Your task to perform on an android device: Search for Mexican restaurants on Maps Image 0: 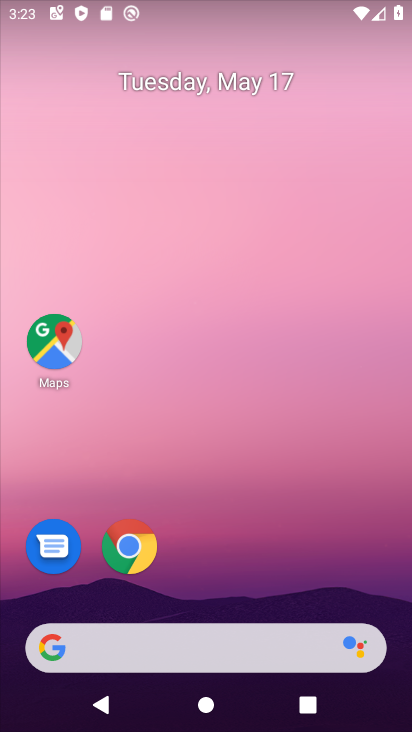
Step 0: click (50, 338)
Your task to perform on an android device: Search for Mexican restaurants on Maps Image 1: 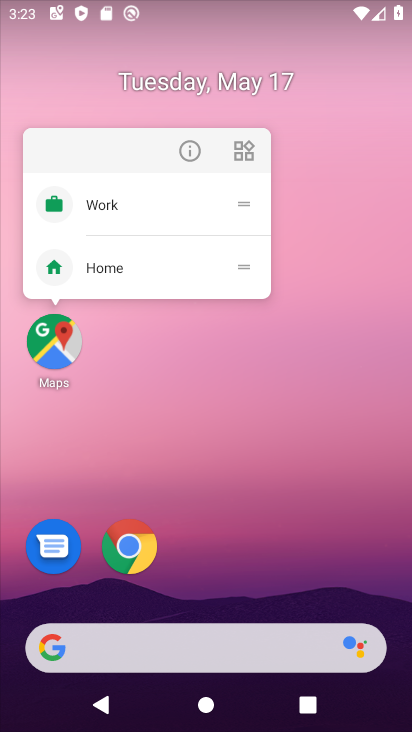
Step 1: click (54, 334)
Your task to perform on an android device: Search for Mexican restaurants on Maps Image 2: 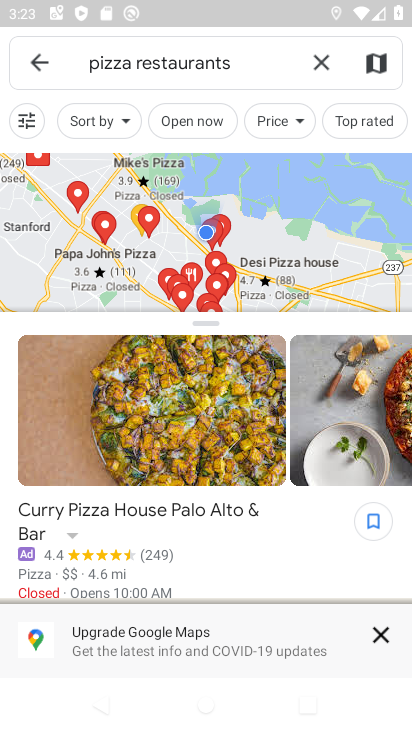
Step 2: click (321, 58)
Your task to perform on an android device: Search for Mexican restaurants on Maps Image 3: 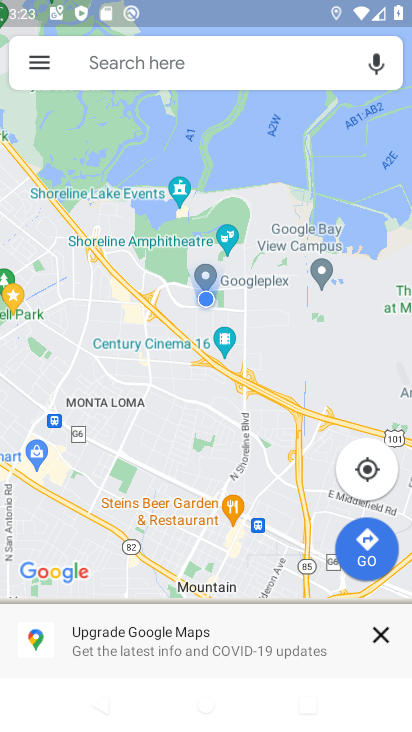
Step 3: type "Mexican restaurants"
Your task to perform on an android device: Search for Mexican restaurants on Maps Image 4: 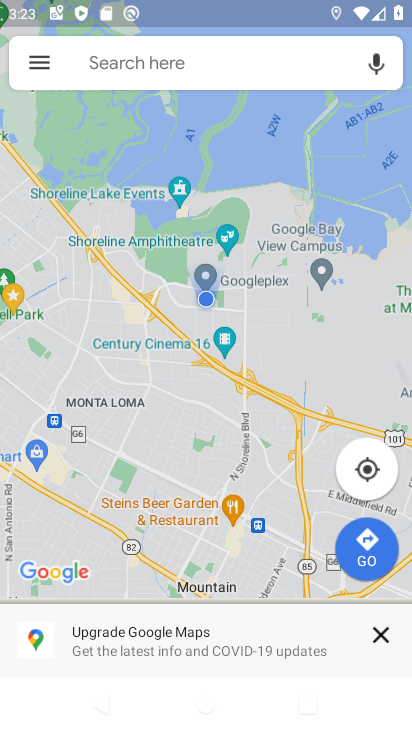
Step 4: click (116, 71)
Your task to perform on an android device: Search for Mexican restaurants on Maps Image 5: 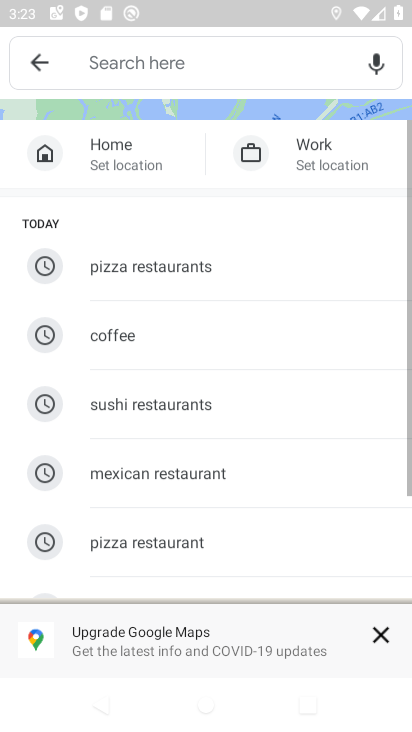
Step 5: click (139, 62)
Your task to perform on an android device: Search for Mexican restaurants on Maps Image 6: 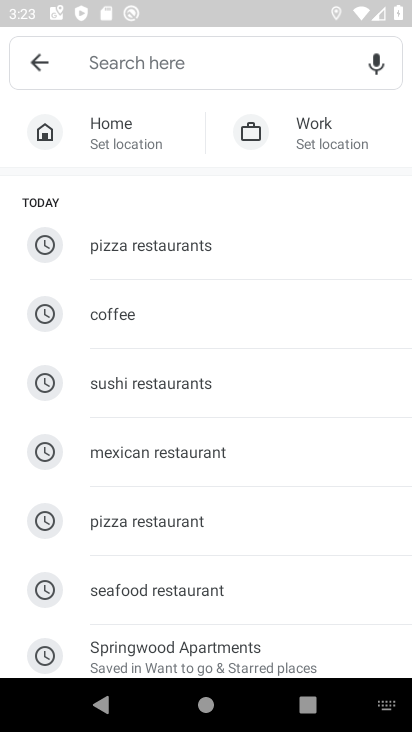
Step 6: type "Mexican restaurants"
Your task to perform on an android device: Search for Mexican restaurants on Maps Image 7: 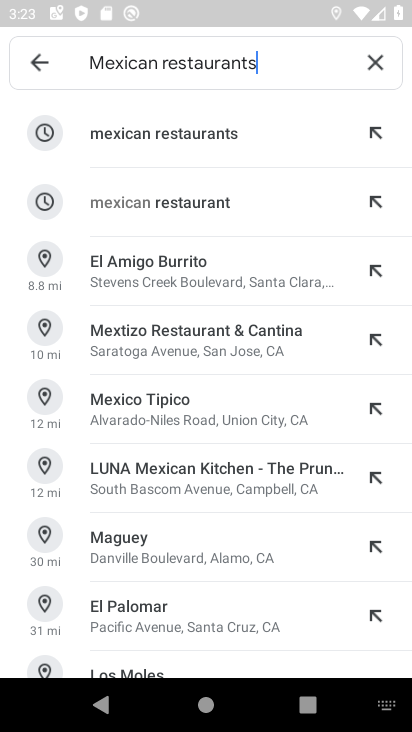
Step 7: click (222, 150)
Your task to perform on an android device: Search for Mexican restaurants on Maps Image 8: 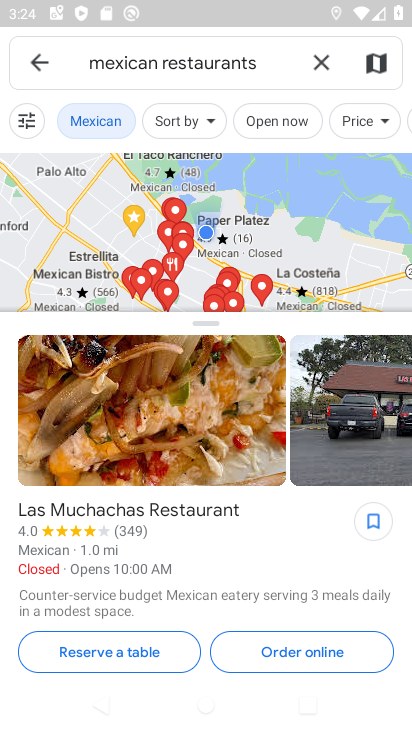
Step 8: task complete